Your task to perform on an android device: Show me recent news Image 0: 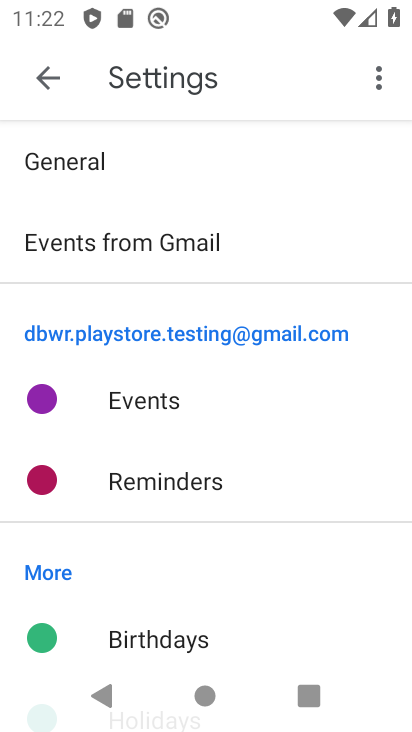
Step 0: press back button
Your task to perform on an android device: Show me recent news Image 1: 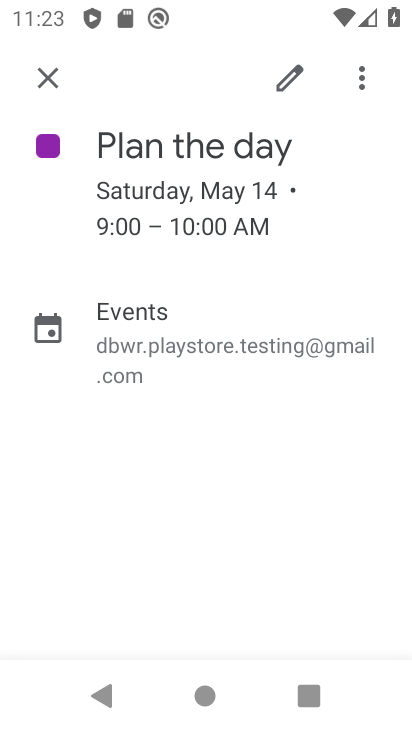
Step 1: press back button
Your task to perform on an android device: Show me recent news Image 2: 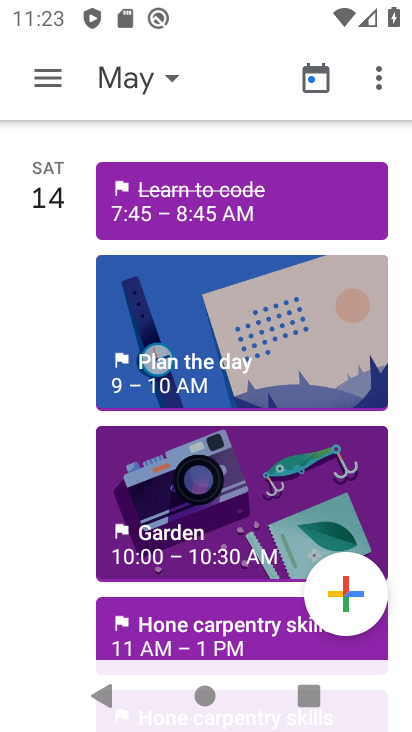
Step 2: press back button
Your task to perform on an android device: Show me recent news Image 3: 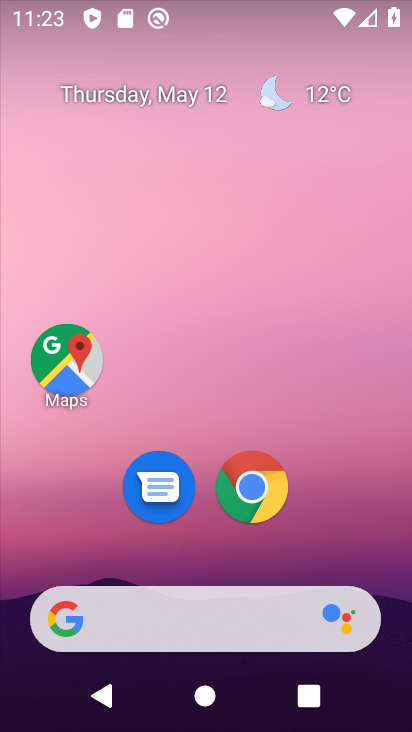
Step 3: click (147, 614)
Your task to perform on an android device: Show me recent news Image 4: 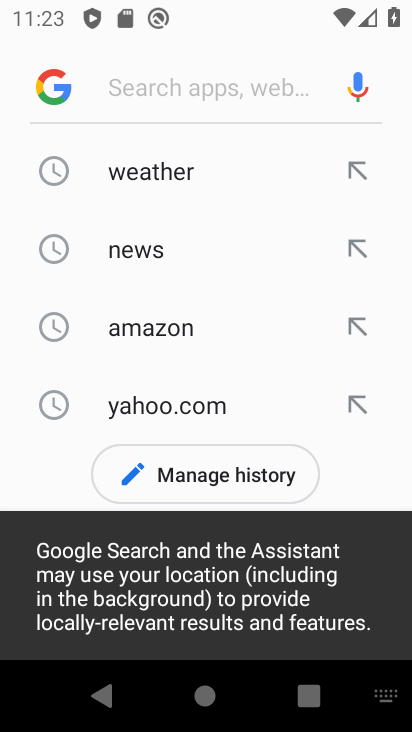
Step 4: click (137, 247)
Your task to perform on an android device: Show me recent news Image 5: 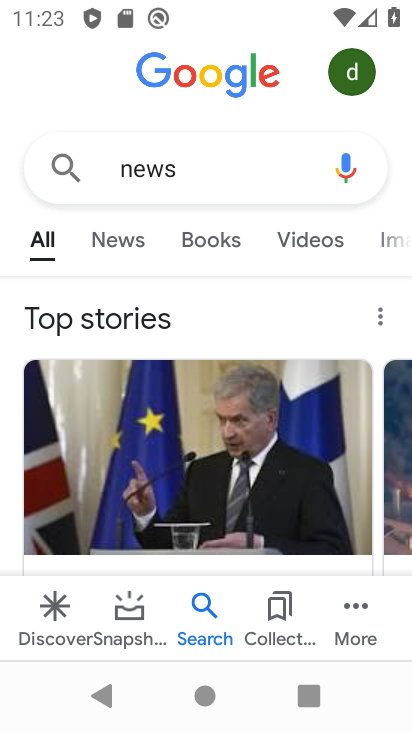
Step 5: task complete